Your task to perform on an android device: Do I have any events tomorrow? Image 0: 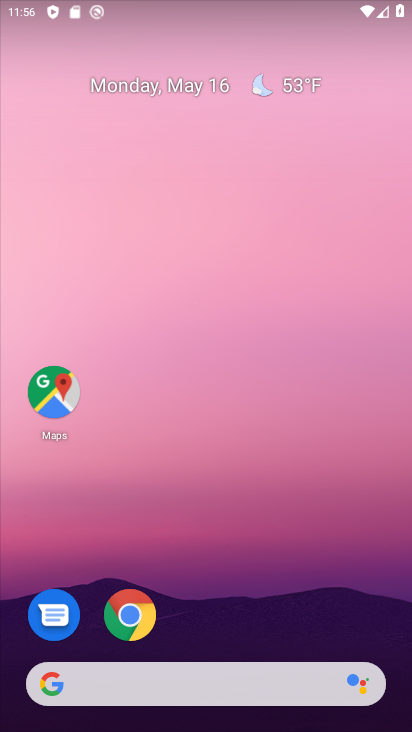
Step 0: drag from (247, 640) to (221, 14)
Your task to perform on an android device: Do I have any events tomorrow? Image 1: 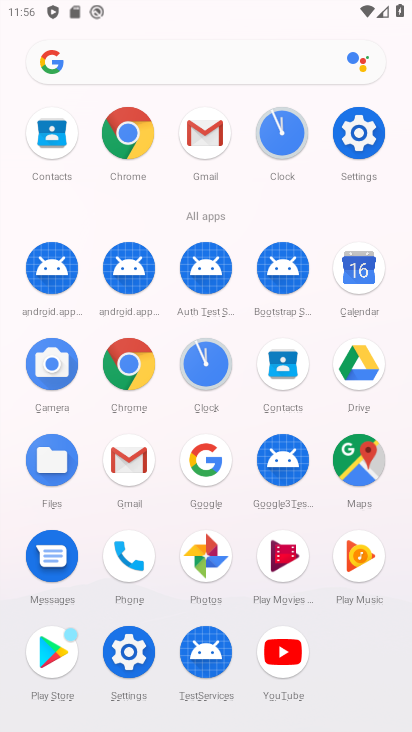
Step 1: click (364, 264)
Your task to perform on an android device: Do I have any events tomorrow? Image 2: 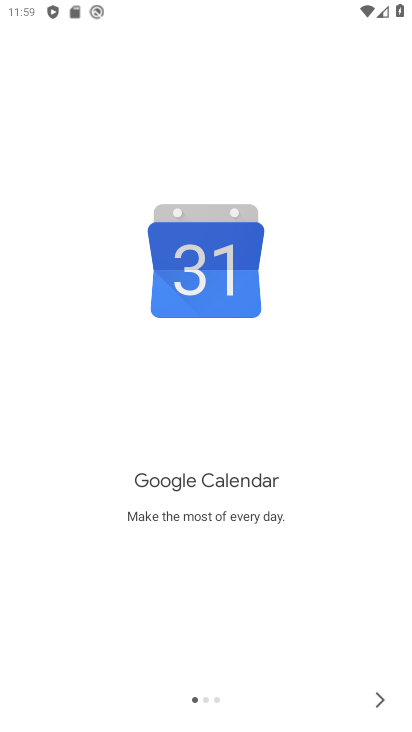
Step 2: click (398, 709)
Your task to perform on an android device: Do I have any events tomorrow? Image 3: 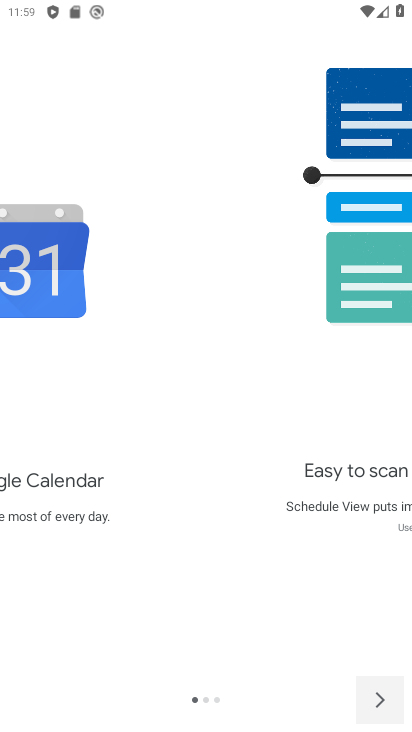
Step 3: click (398, 709)
Your task to perform on an android device: Do I have any events tomorrow? Image 4: 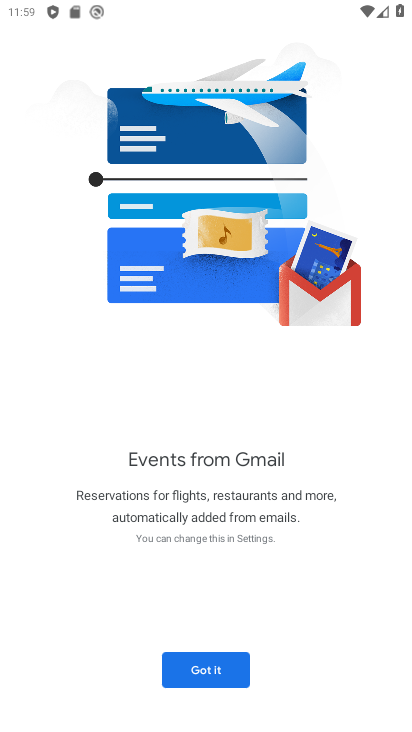
Step 4: click (235, 667)
Your task to perform on an android device: Do I have any events tomorrow? Image 5: 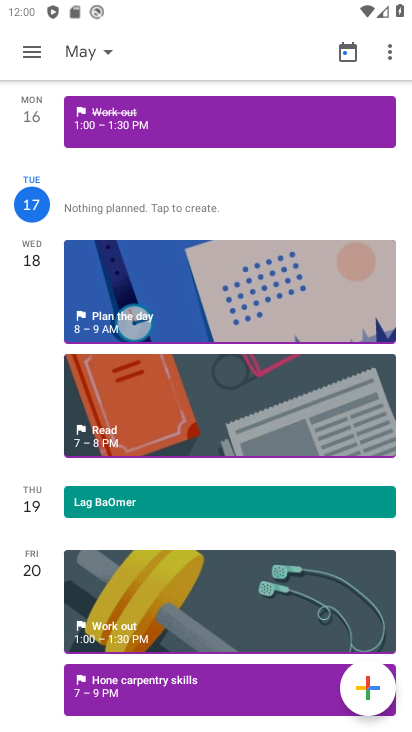
Step 5: task complete